Your task to perform on an android device: Show the shopping cart on costco.com. Image 0: 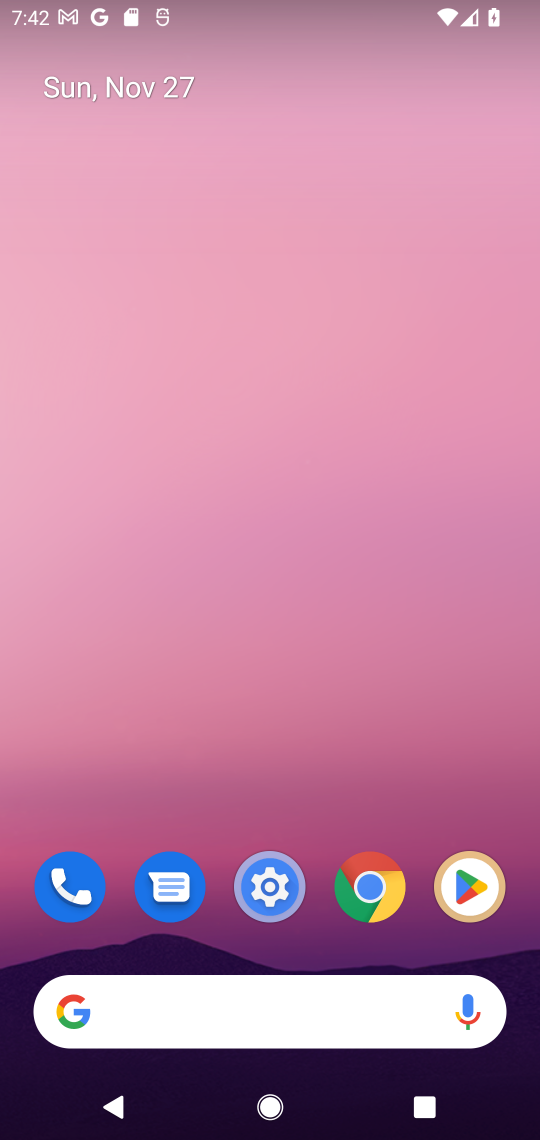
Step 0: click (143, 1026)
Your task to perform on an android device: Show the shopping cart on costco.com. Image 1: 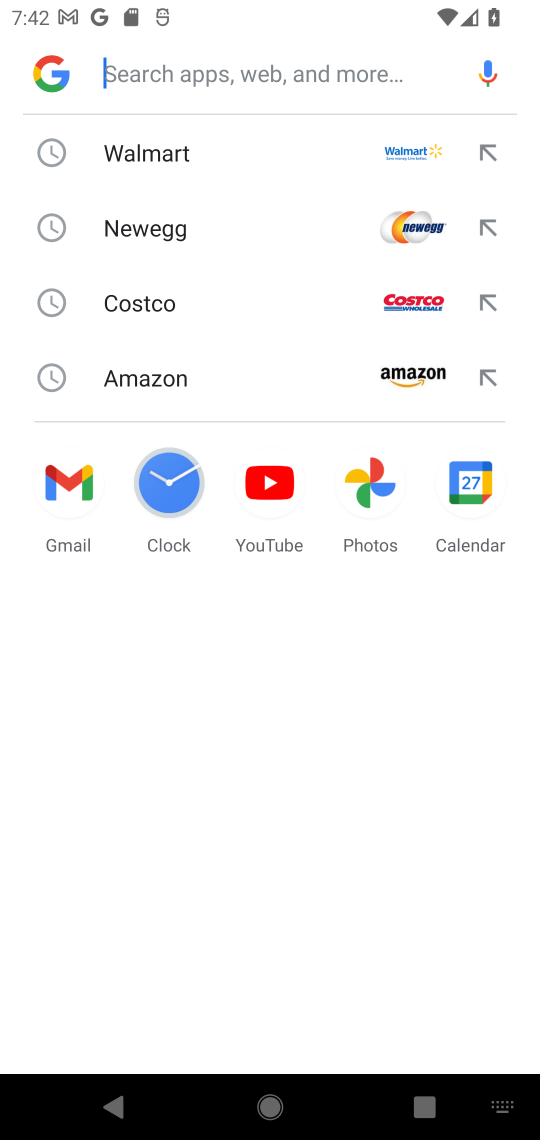
Step 1: click (249, 309)
Your task to perform on an android device: Show the shopping cart on costco.com. Image 2: 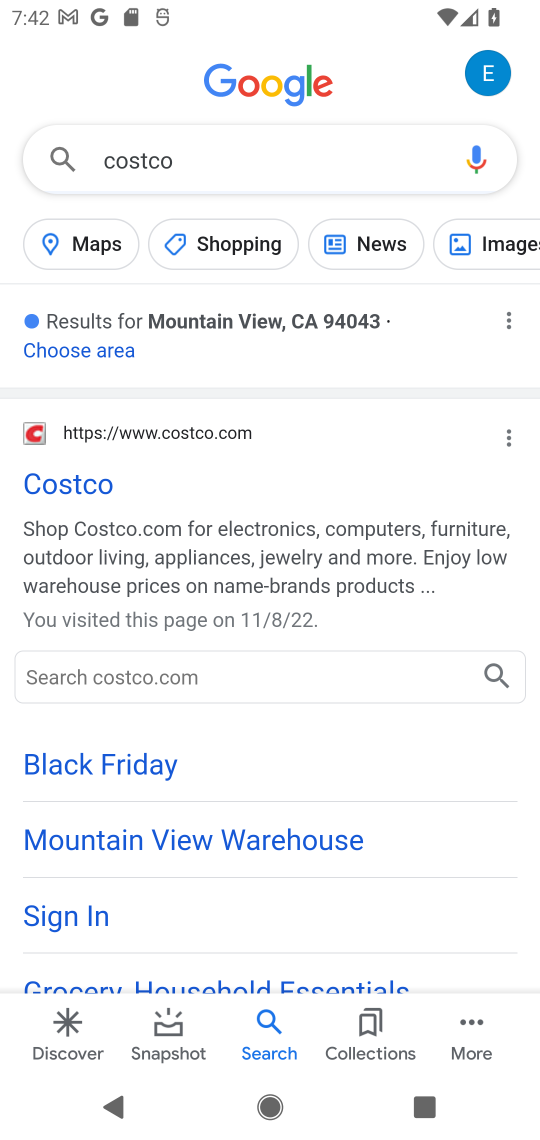
Step 2: click (103, 477)
Your task to perform on an android device: Show the shopping cart on costco.com. Image 3: 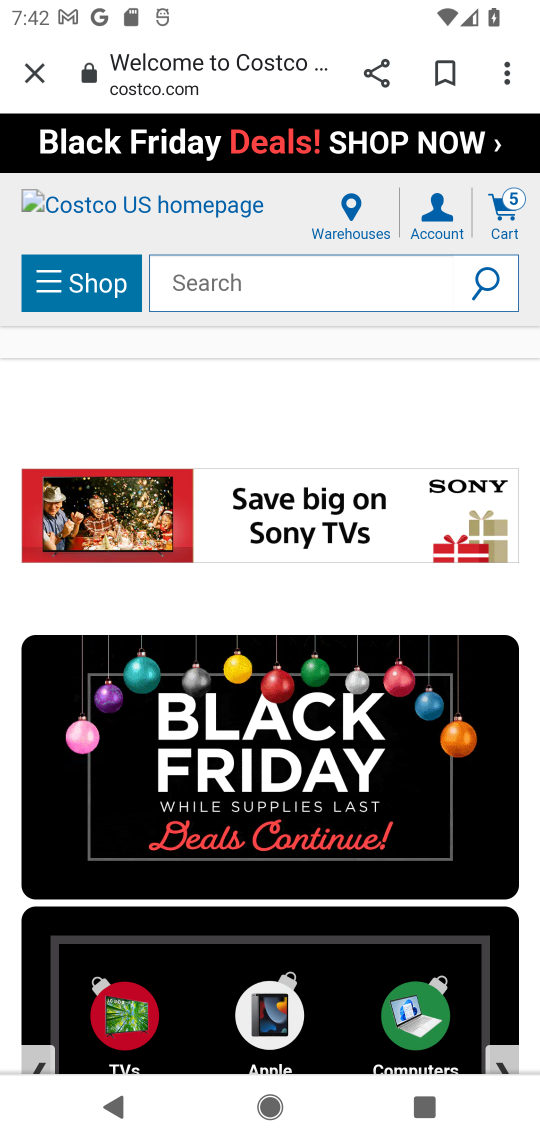
Step 3: click (166, 280)
Your task to perform on an android device: Show the shopping cart on costco.com. Image 4: 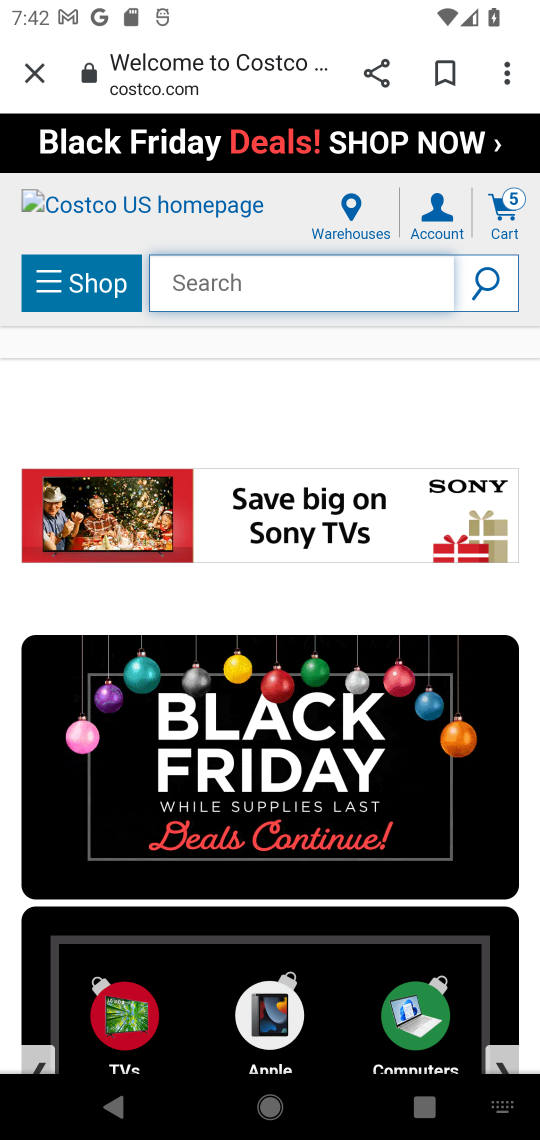
Step 4: click (501, 237)
Your task to perform on an android device: Show the shopping cart on costco.com. Image 5: 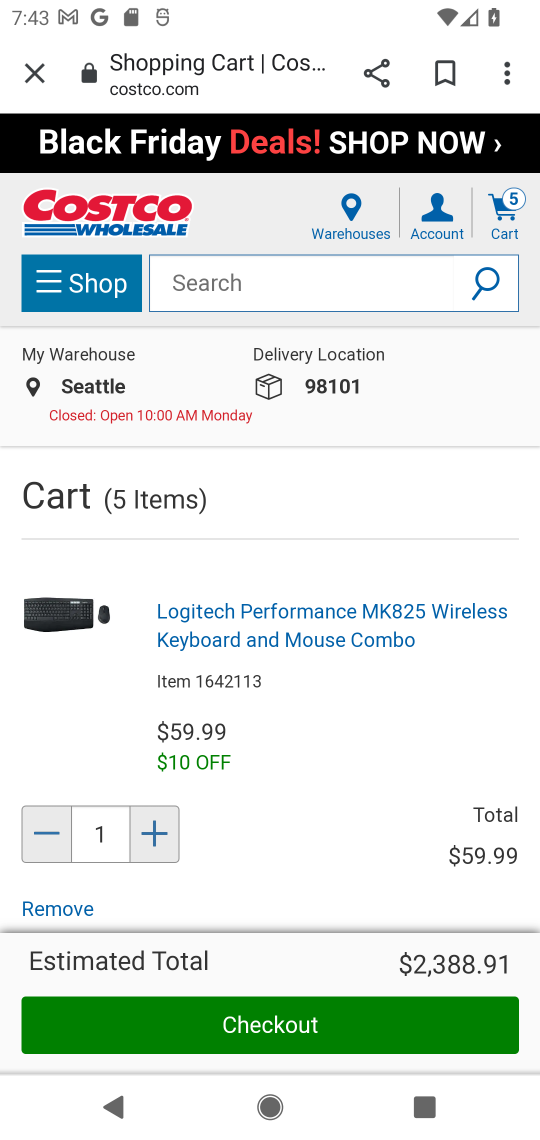
Step 5: task complete